Your task to perform on an android device: Search for pizza restaurants on Maps Image 0: 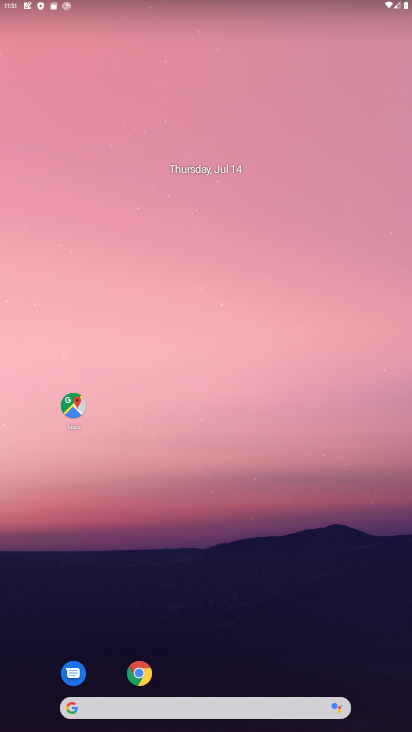
Step 0: click (74, 405)
Your task to perform on an android device: Search for pizza restaurants on Maps Image 1: 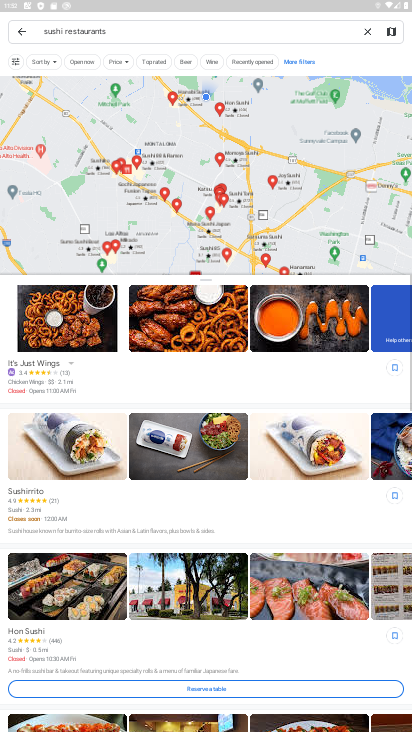
Step 1: click (20, 34)
Your task to perform on an android device: Search for pizza restaurants on Maps Image 2: 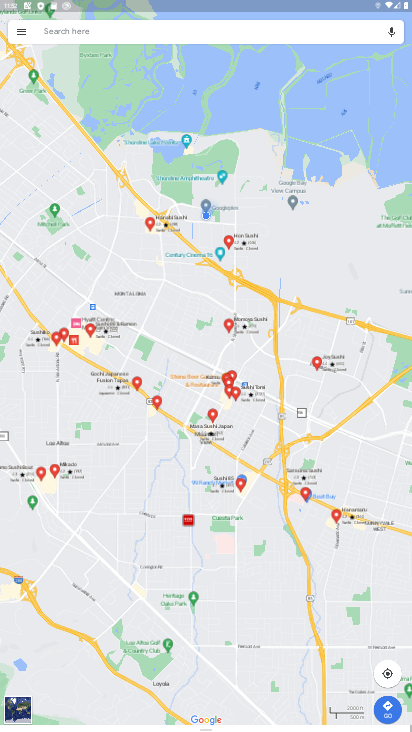
Step 2: click (190, 28)
Your task to perform on an android device: Search for pizza restaurants on Maps Image 3: 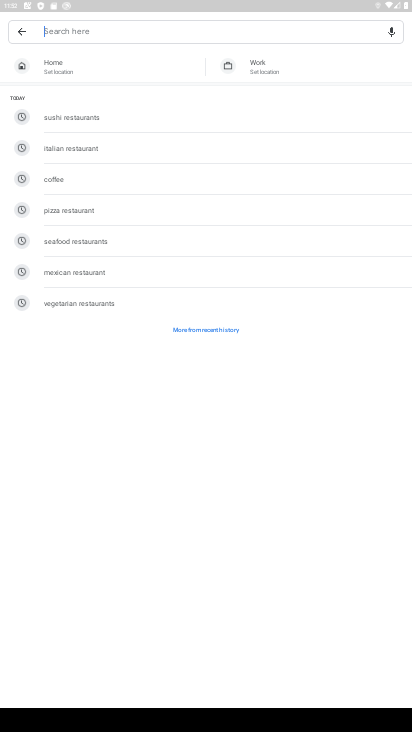
Step 3: click (79, 211)
Your task to perform on an android device: Search for pizza restaurants on Maps Image 4: 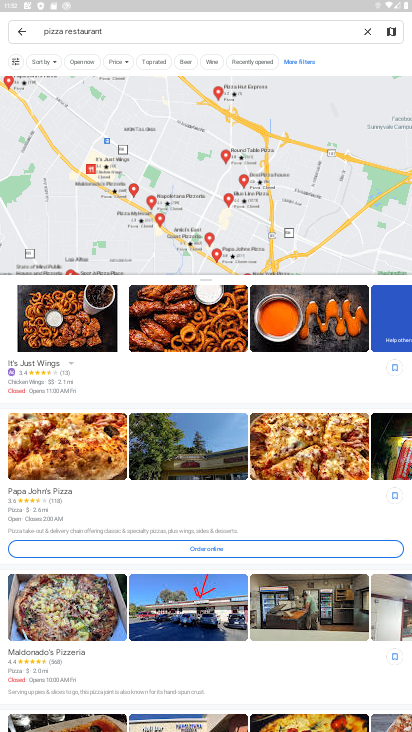
Step 4: task complete